Your task to perform on an android device: Open settings Image 0: 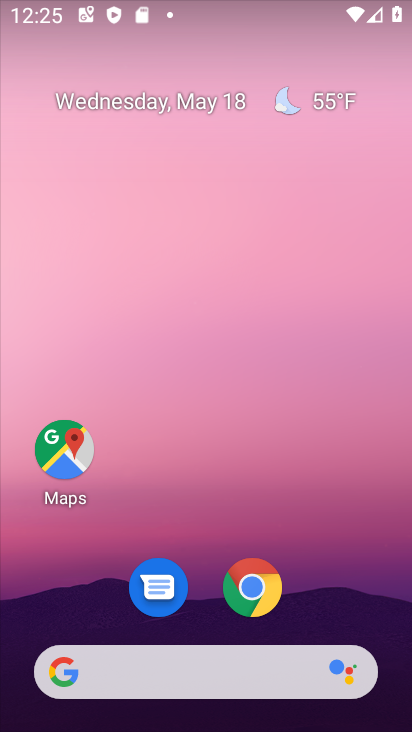
Step 0: drag from (325, 599) to (217, 92)
Your task to perform on an android device: Open settings Image 1: 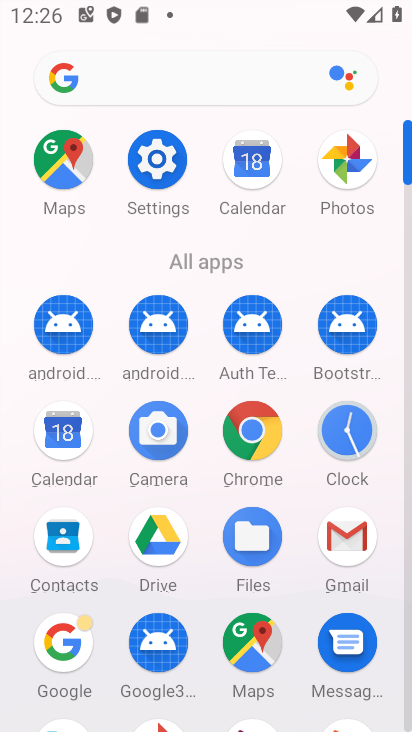
Step 1: click (148, 168)
Your task to perform on an android device: Open settings Image 2: 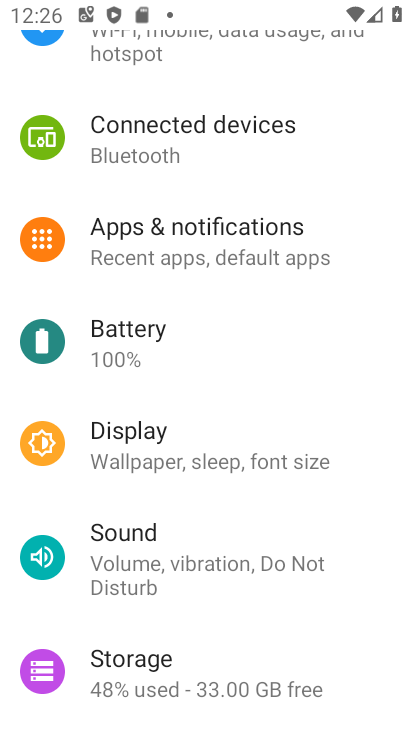
Step 2: task complete